Your task to perform on an android device: find snoozed emails in the gmail app Image 0: 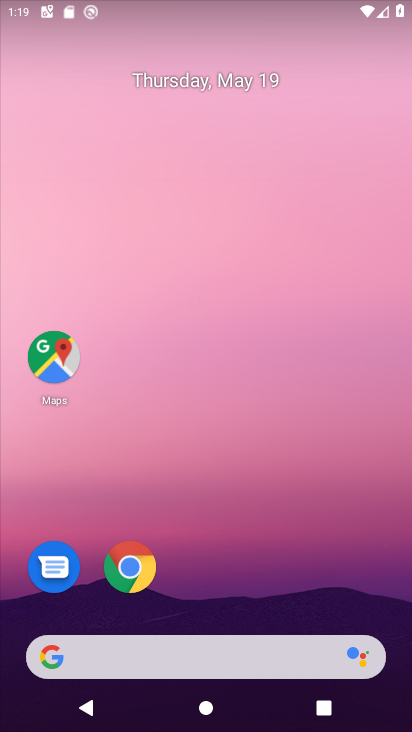
Step 0: drag from (233, 573) to (211, 16)
Your task to perform on an android device: find snoozed emails in the gmail app Image 1: 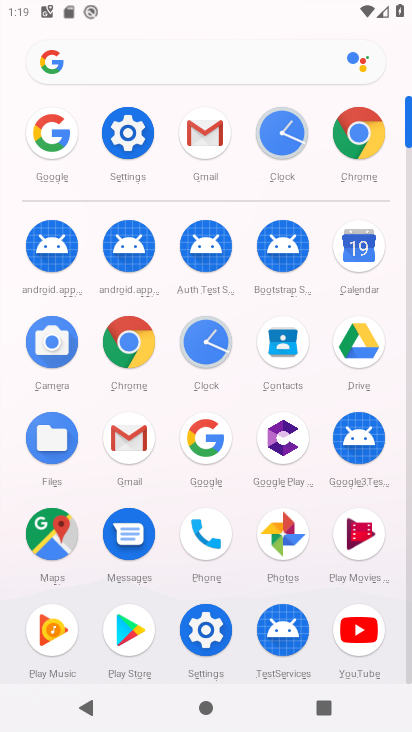
Step 1: click (117, 447)
Your task to perform on an android device: find snoozed emails in the gmail app Image 2: 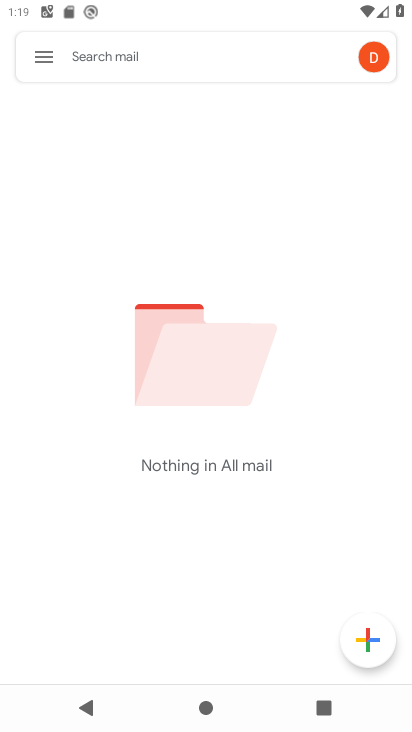
Step 2: click (31, 55)
Your task to perform on an android device: find snoozed emails in the gmail app Image 3: 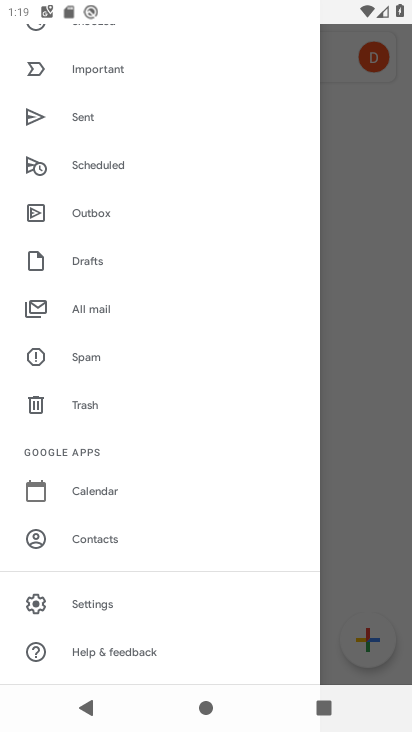
Step 3: drag from (159, 222) to (133, 442)
Your task to perform on an android device: find snoozed emails in the gmail app Image 4: 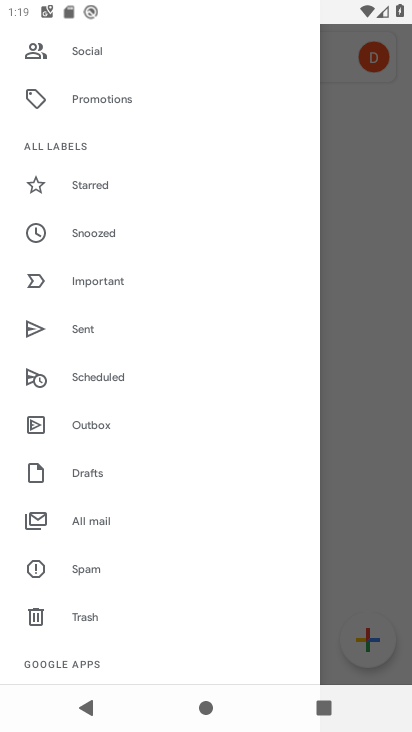
Step 4: click (107, 232)
Your task to perform on an android device: find snoozed emails in the gmail app Image 5: 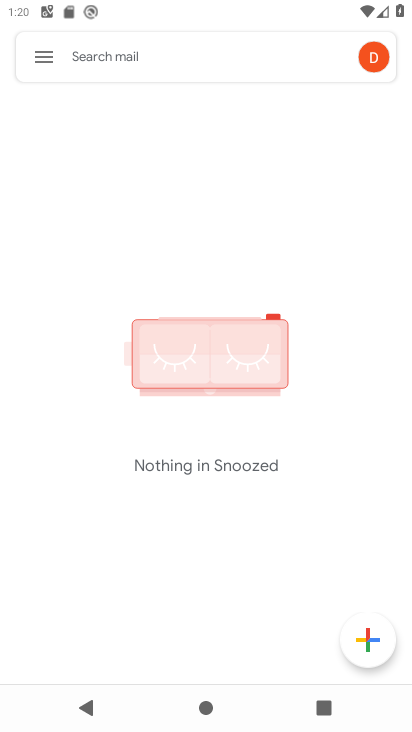
Step 5: task complete